Your task to perform on an android device: move an email to a new category in the gmail app Image 0: 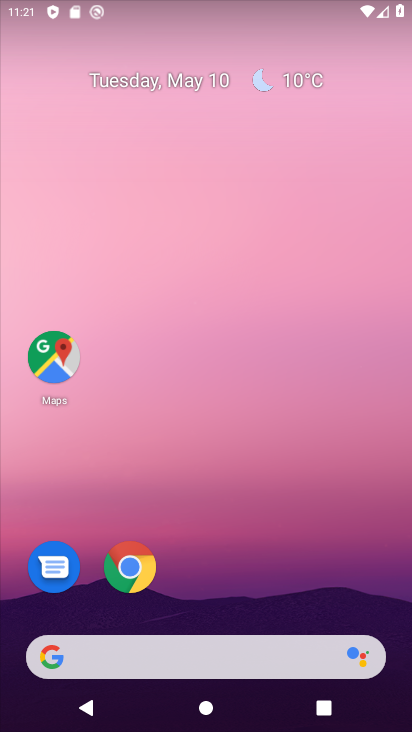
Step 0: drag from (151, 588) to (193, 142)
Your task to perform on an android device: move an email to a new category in the gmail app Image 1: 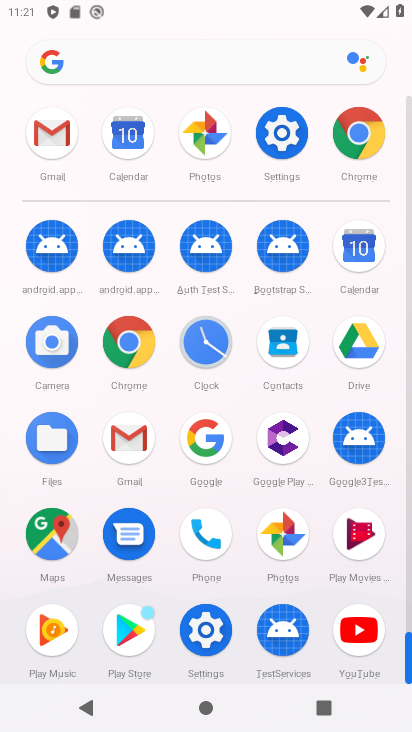
Step 1: click (127, 426)
Your task to perform on an android device: move an email to a new category in the gmail app Image 2: 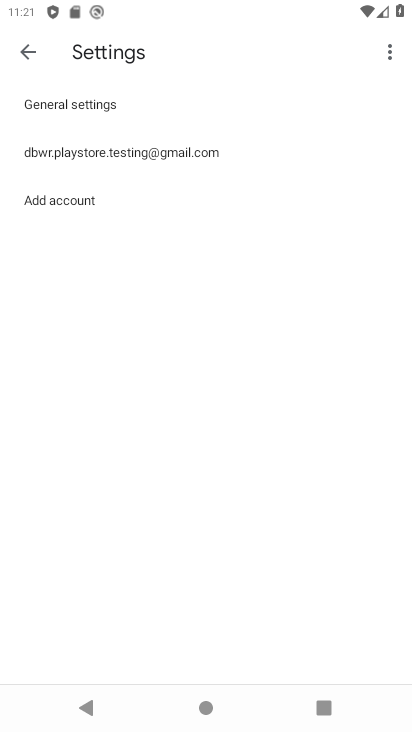
Step 2: click (201, 149)
Your task to perform on an android device: move an email to a new category in the gmail app Image 3: 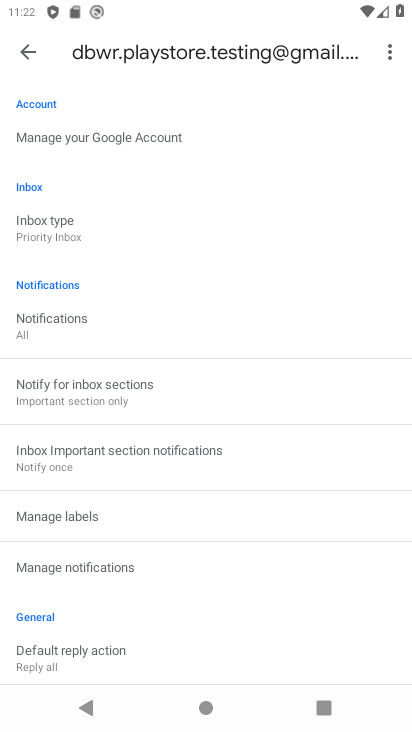
Step 3: press back button
Your task to perform on an android device: move an email to a new category in the gmail app Image 4: 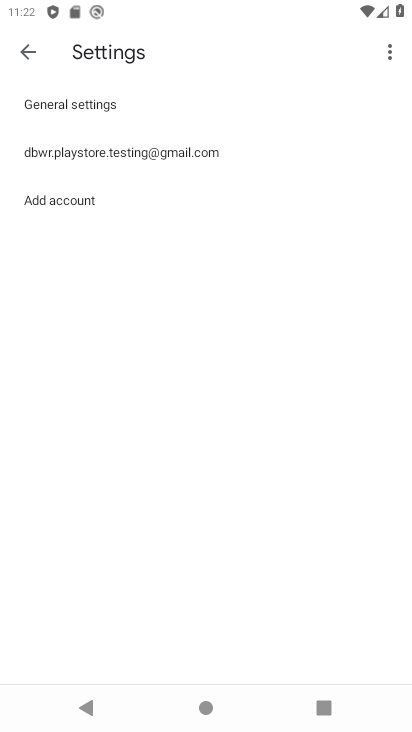
Step 4: press back button
Your task to perform on an android device: move an email to a new category in the gmail app Image 5: 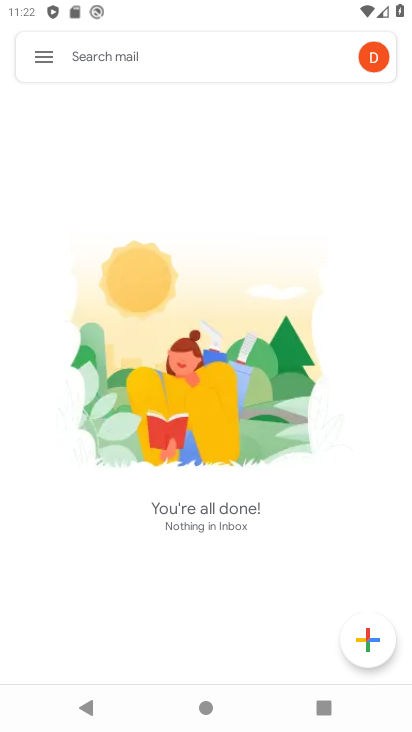
Step 5: click (45, 58)
Your task to perform on an android device: move an email to a new category in the gmail app Image 6: 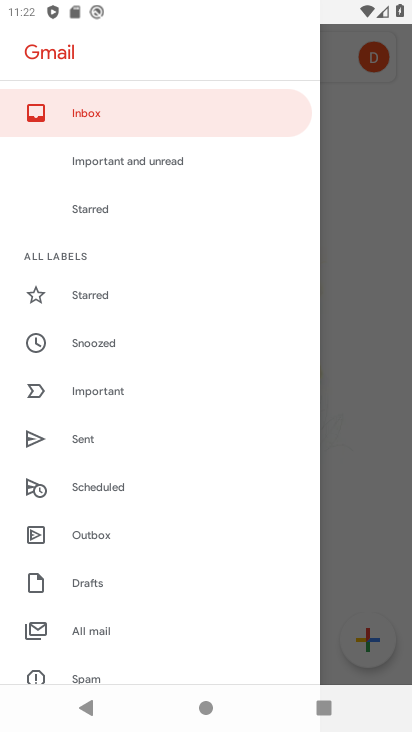
Step 6: task complete